Your task to perform on an android device: set the stopwatch Image 0: 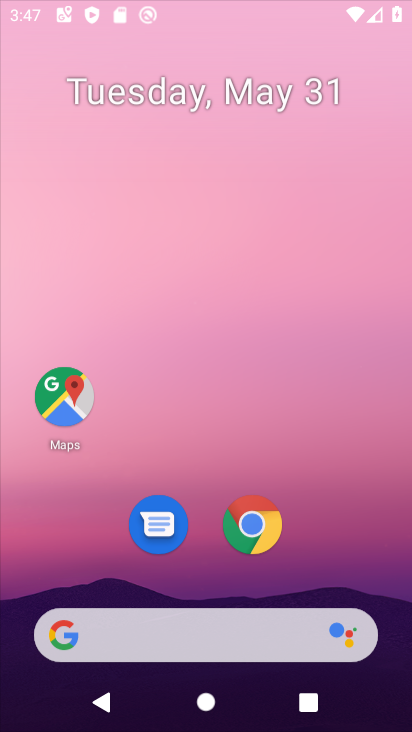
Step 0: click (147, 29)
Your task to perform on an android device: set the stopwatch Image 1: 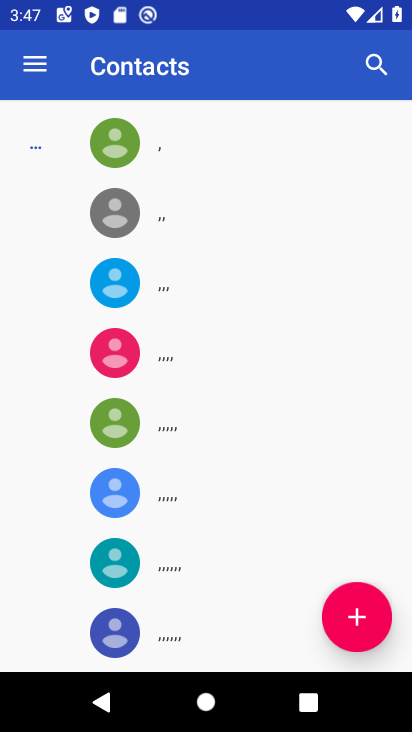
Step 1: press home button
Your task to perform on an android device: set the stopwatch Image 2: 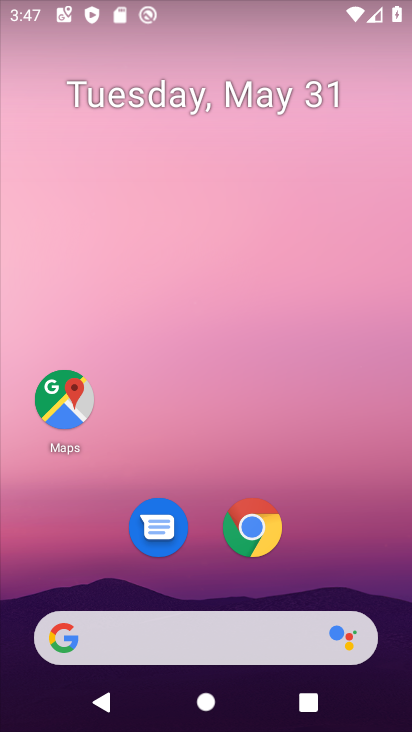
Step 2: drag from (222, 597) to (166, 1)
Your task to perform on an android device: set the stopwatch Image 3: 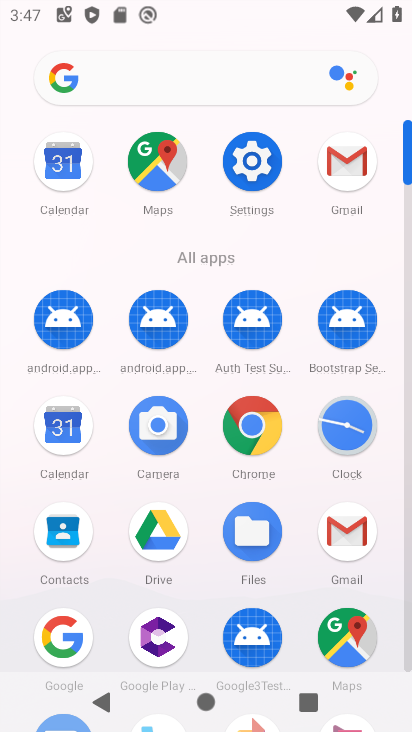
Step 3: click (345, 429)
Your task to perform on an android device: set the stopwatch Image 4: 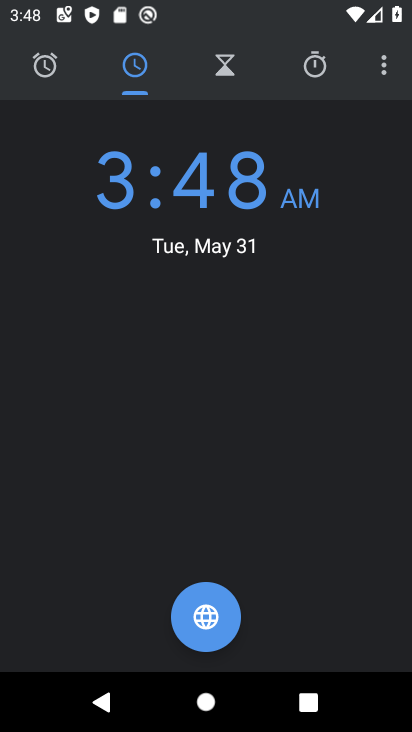
Step 4: click (326, 53)
Your task to perform on an android device: set the stopwatch Image 5: 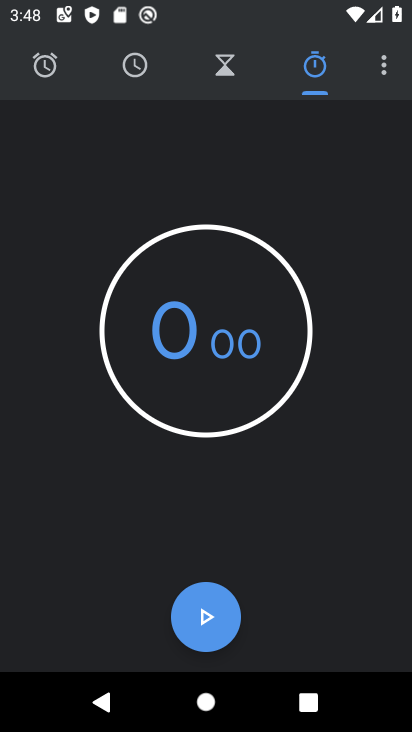
Step 5: task complete